Your task to perform on an android device: Open calendar and show me the first week of next month Image 0: 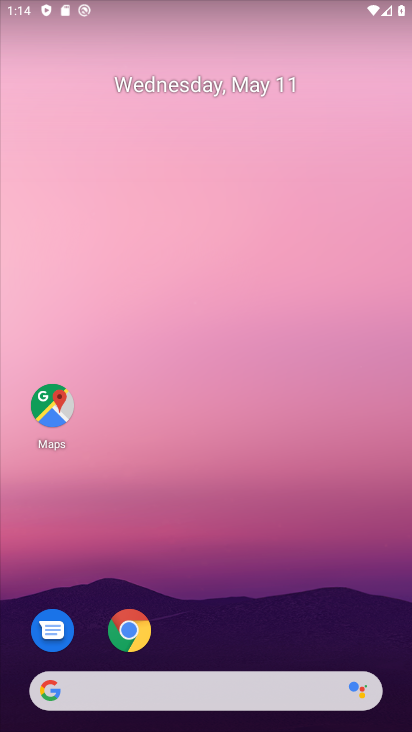
Step 0: drag from (200, 664) to (300, 190)
Your task to perform on an android device: Open calendar and show me the first week of next month Image 1: 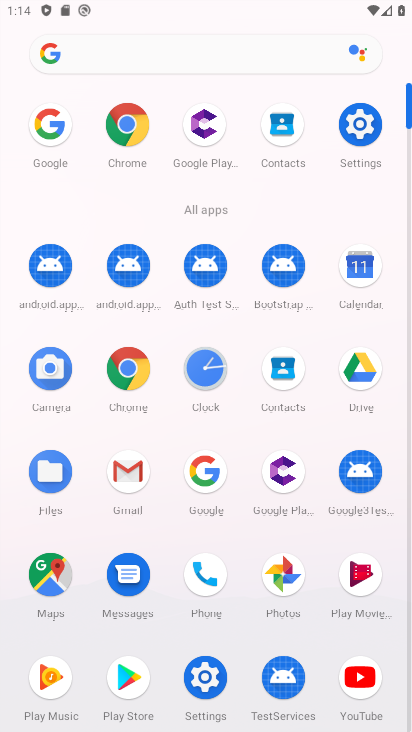
Step 1: click (369, 288)
Your task to perform on an android device: Open calendar and show me the first week of next month Image 2: 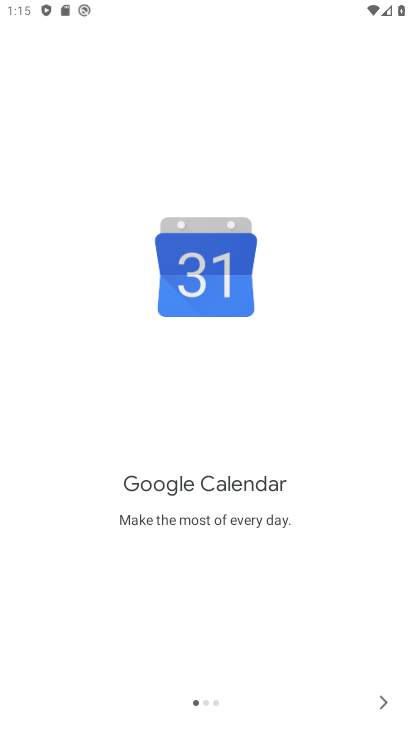
Step 2: click (382, 702)
Your task to perform on an android device: Open calendar and show me the first week of next month Image 3: 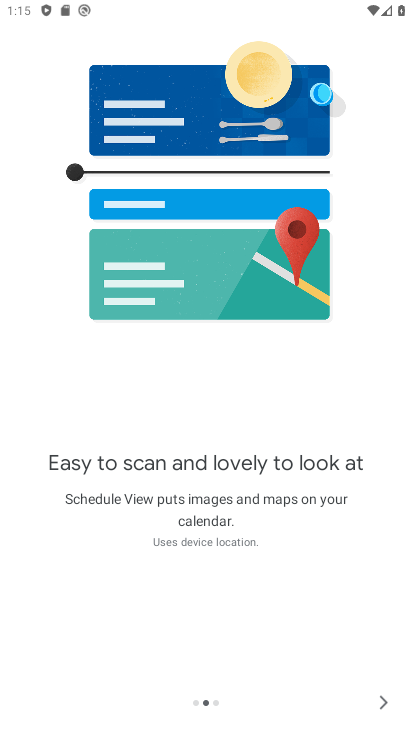
Step 3: click (382, 702)
Your task to perform on an android device: Open calendar and show me the first week of next month Image 4: 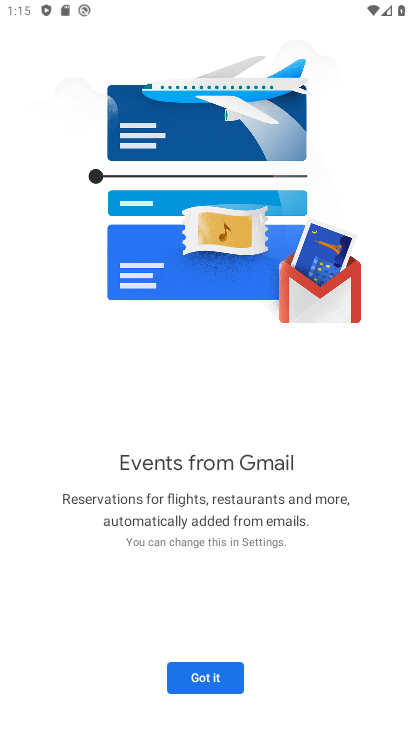
Step 4: click (222, 683)
Your task to perform on an android device: Open calendar and show me the first week of next month Image 5: 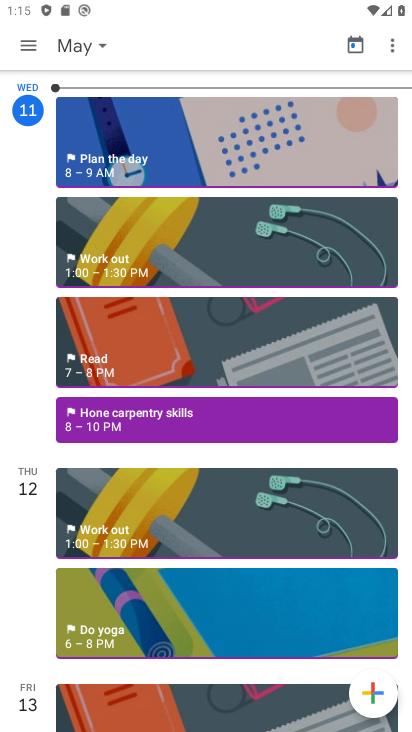
Step 5: click (78, 42)
Your task to perform on an android device: Open calendar and show me the first week of next month Image 6: 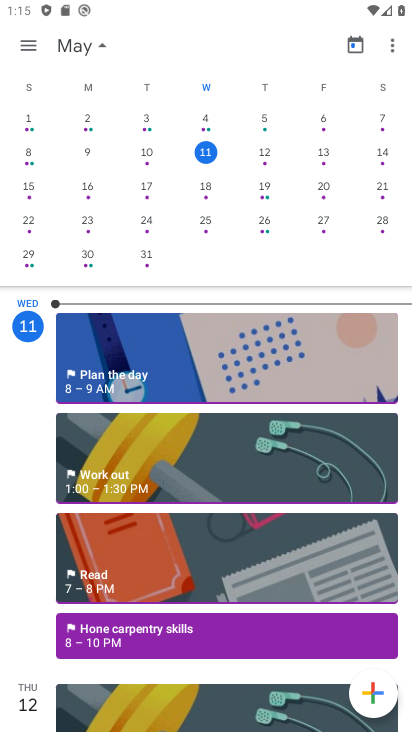
Step 6: drag from (356, 253) to (17, 226)
Your task to perform on an android device: Open calendar and show me the first week of next month Image 7: 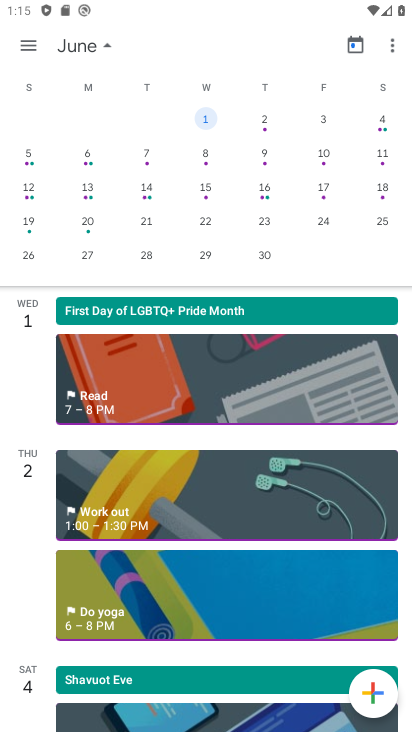
Step 7: click (31, 152)
Your task to perform on an android device: Open calendar and show me the first week of next month Image 8: 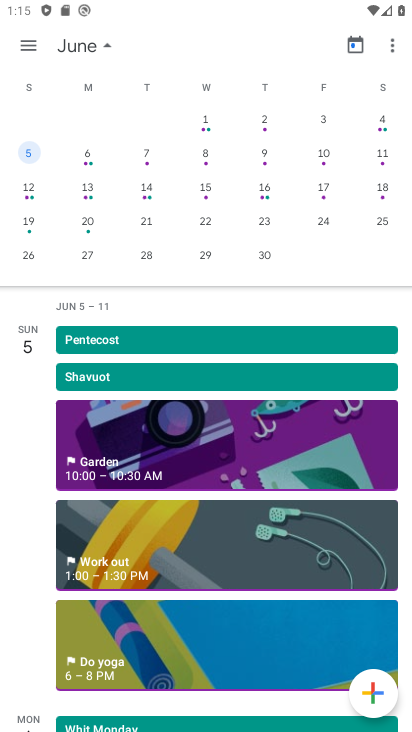
Step 8: click (29, 51)
Your task to perform on an android device: Open calendar and show me the first week of next month Image 9: 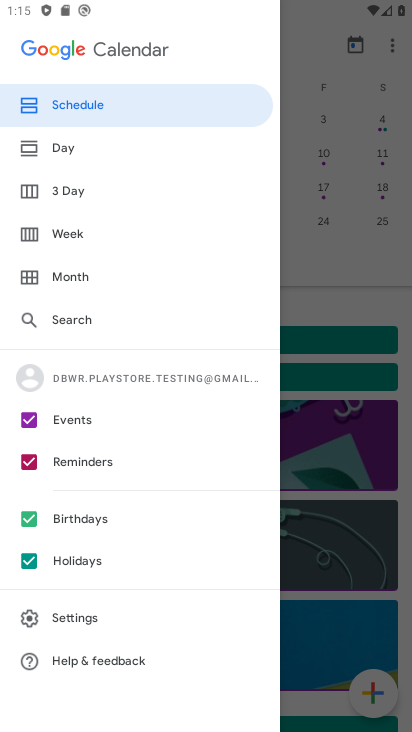
Step 9: click (63, 236)
Your task to perform on an android device: Open calendar and show me the first week of next month Image 10: 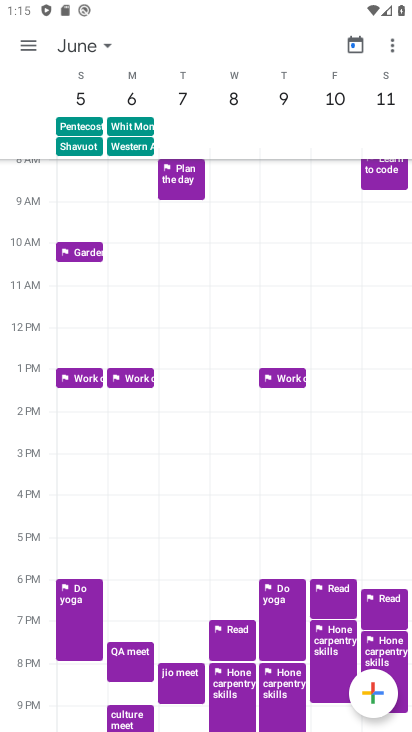
Step 10: task complete